Your task to perform on an android device: What's the weather? Image 0: 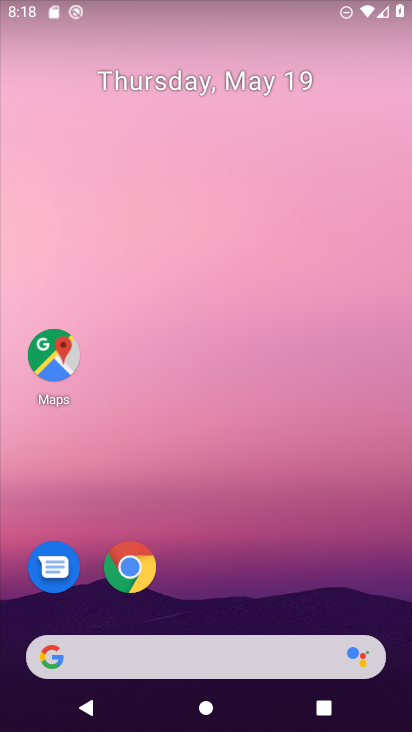
Step 0: click (200, 652)
Your task to perform on an android device: What's the weather? Image 1: 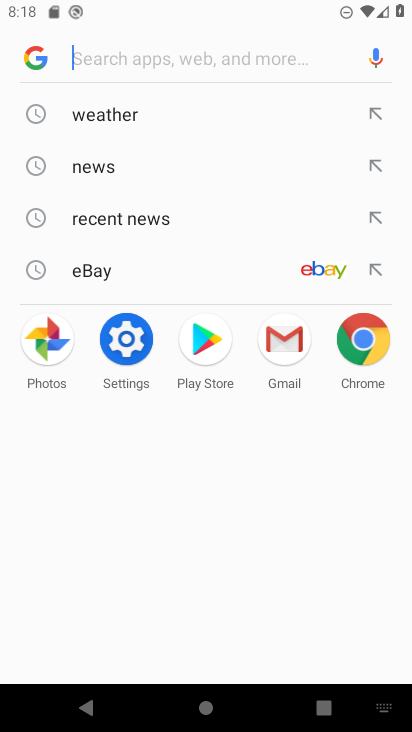
Step 1: click (113, 107)
Your task to perform on an android device: What's the weather? Image 2: 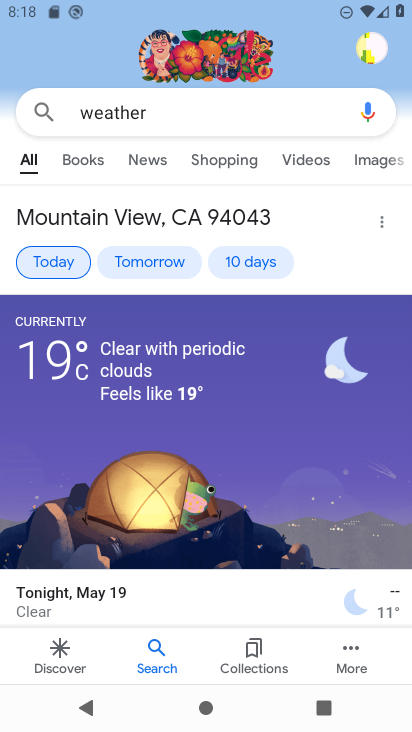
Step 2: task complete